Your task to perform on an android device: change notifications settings Image 0: 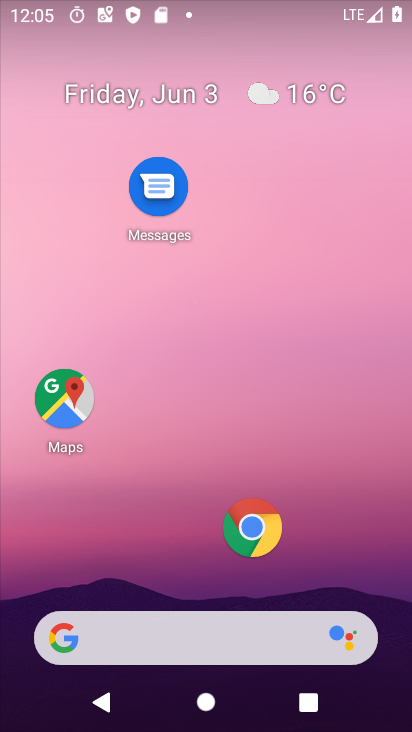
Step 0: drag from (192, 581) to (283, 24)
Your task to perform on an android device: change notifications settings Image 1: 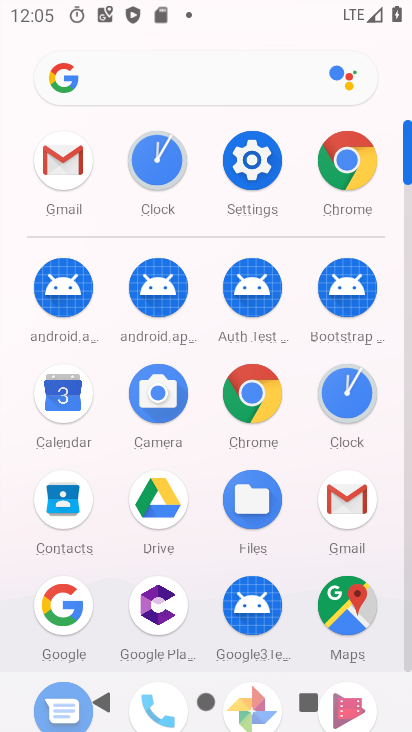
Step 1: click (250, 154)
Your task to perform on an android device: change notifications settings Image 2: 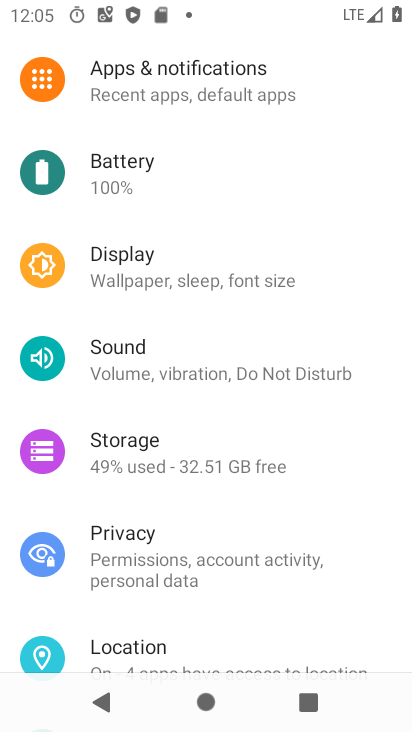
Step 2: click (198, 74)
Your task to perform on an android device: change notifications settings Image 3: 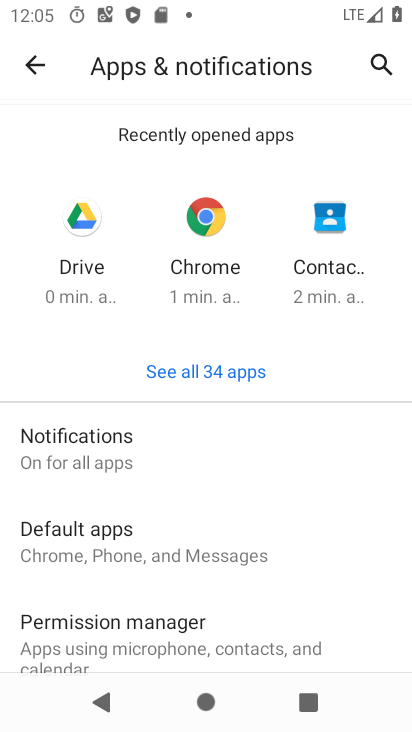
Step 3: click (164, 451)
Your task to perform on an android device: change notifications settings Image 4: 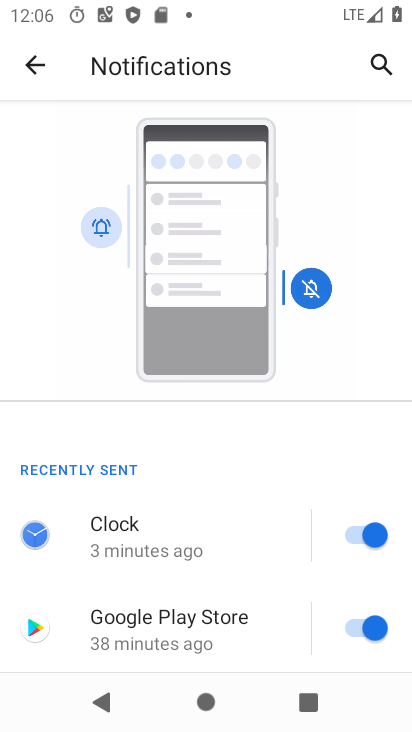
Step 4: drag from (231, 619) to (255, 184)
Your task to perform on an android device: change notifications settings Image 5: 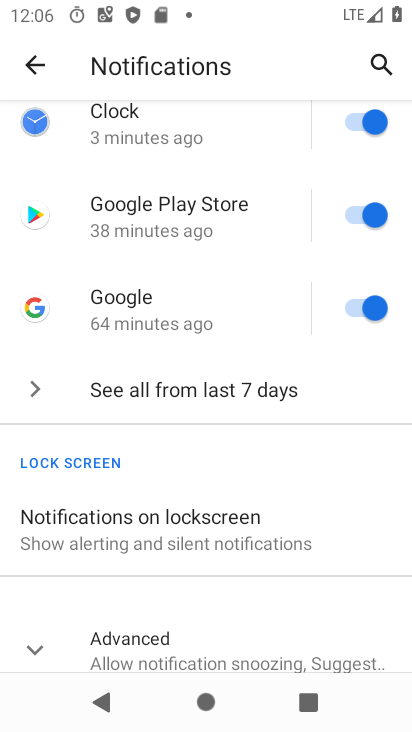
Step 5: click (178, 641)
Your task to perform on an android device: change notifications settings Image 6: 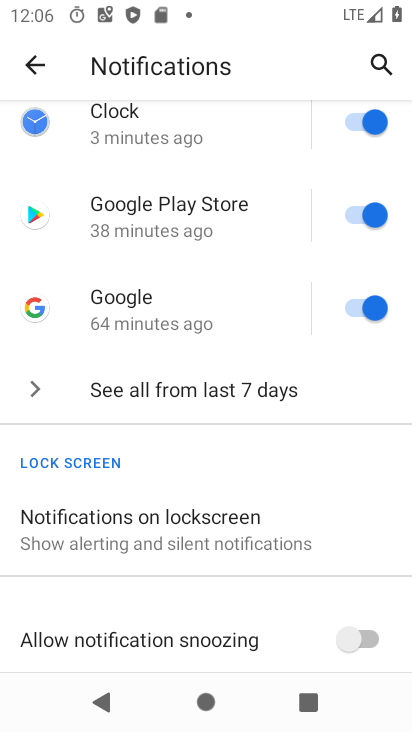
Step 6: drag from (226, 599) to (240, 289)
Your task to perform on an android device: change notifications settings Image 7: 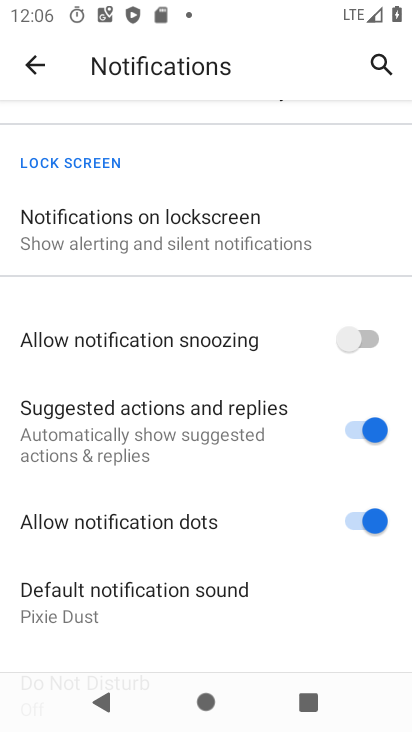
Step 7: click (363, 422)
Your task to perform on an android device: change notifications settings Image 8: 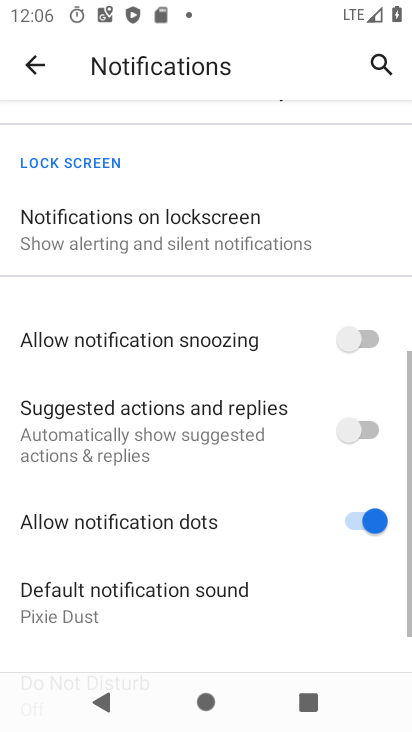
Step 8: click (359, 514)
Your task to perform on an android device: change notifications settings Image 9: 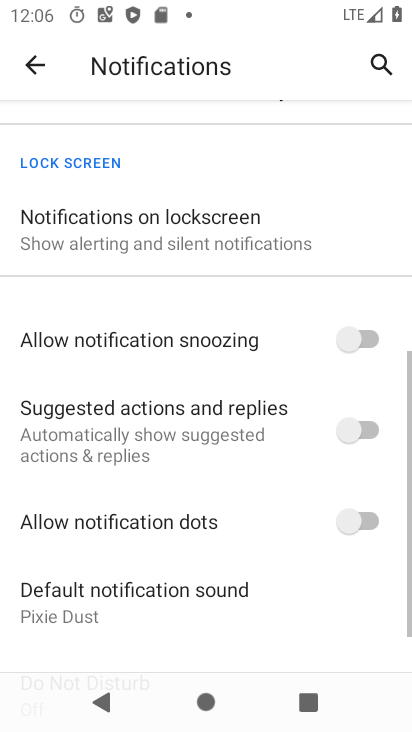
Step 9: drag from (258, 187) to (286, 517)
Your task to perform on an android device: change notifications settings Image 10: 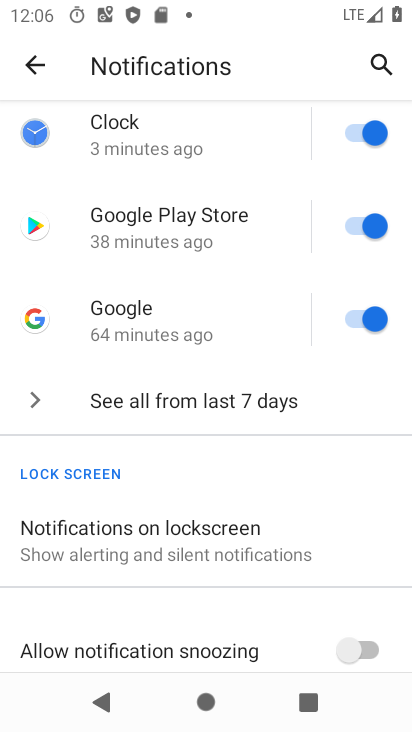
Step 10: click (366, 130)
Your task to perform on an android device: change notifications settings Image 11: 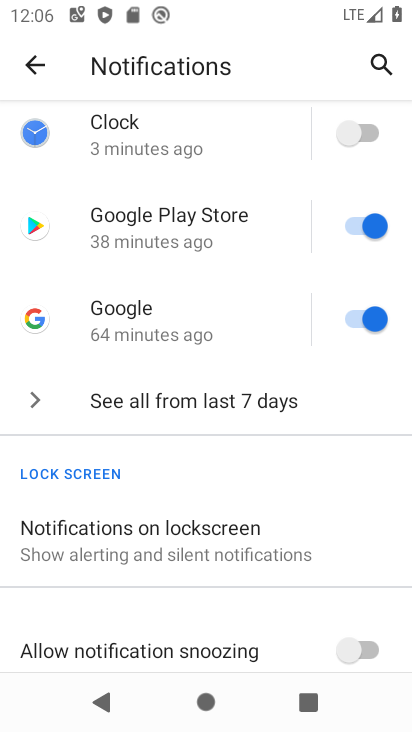
Step 11: click (369, 220)
Your task to perform on an android device: change notifications settings Image 12: 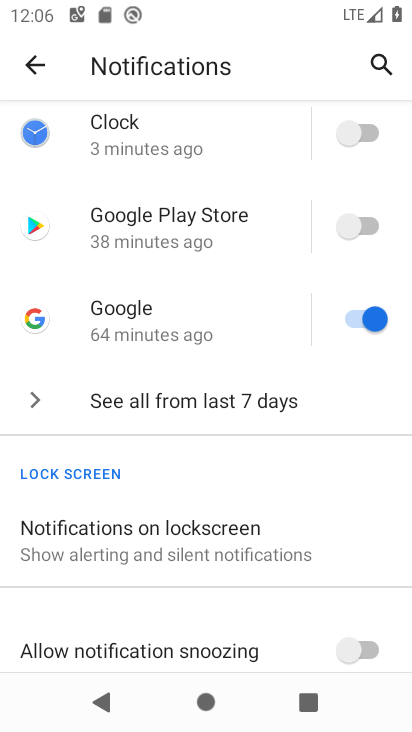
Step 12: click (357, 321)
Your task to perform on an android device: change notifications settings Image 13: 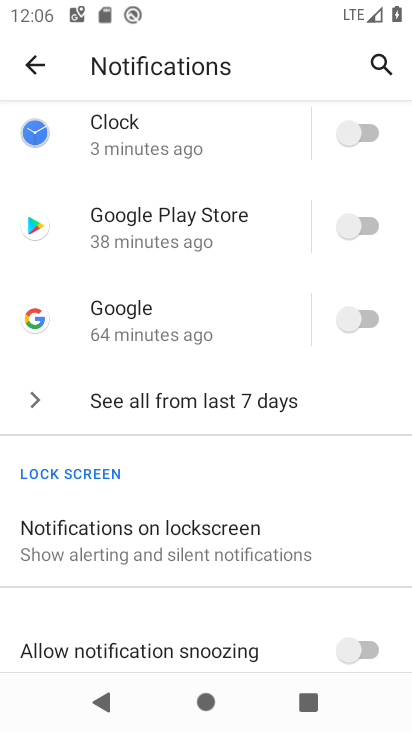
Step 13: task complete